Your task to perform on an android device: Go to accessibility settings Image 0: 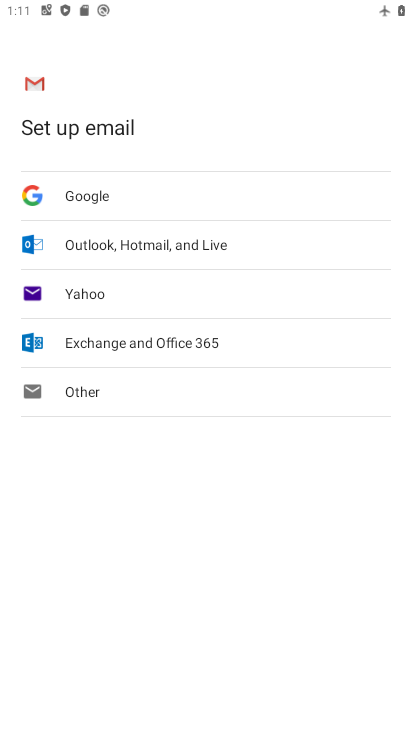
Step 0: press home button
Your task to perform on an android device: Go to accessibility settings Image 1: 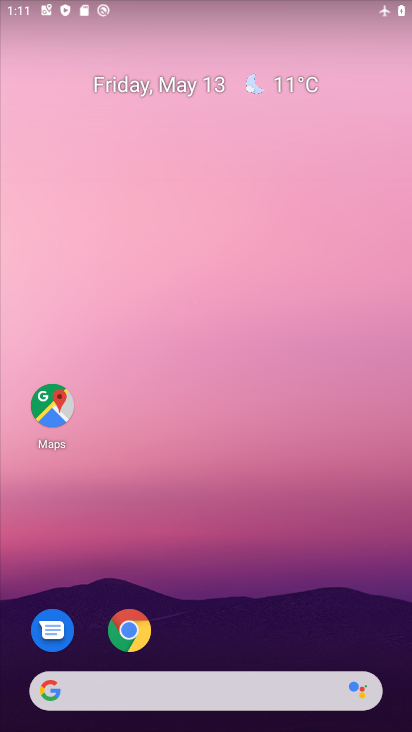
Step 1: drag from (336, 632) to (368, 27)
Your task to perform on an android device: Go to accessibility settings Image 2: 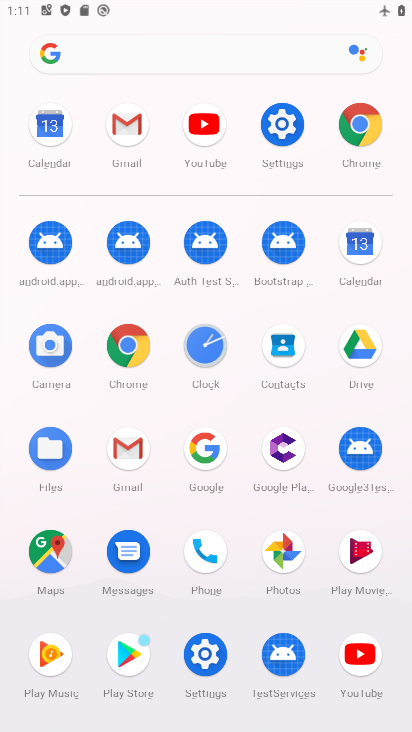
Step 2: click (288, 121)
Your task to perform on an android device: Go to accessibility settings Image 3: 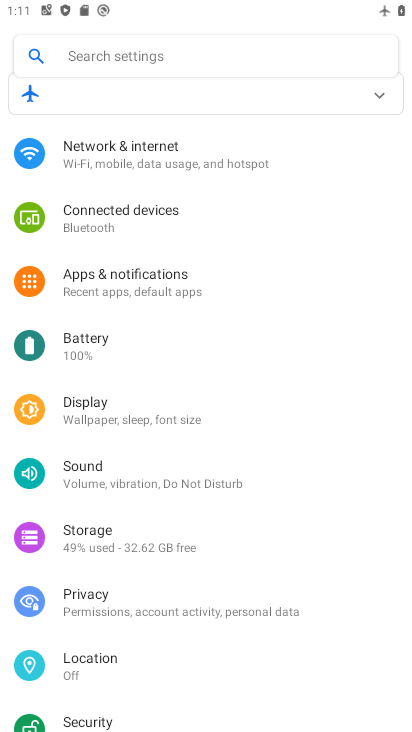
Step 3: drag from (336, 577) to (334, 191)
Your task to perform on an android device: Go to accessibility settings Image 4: 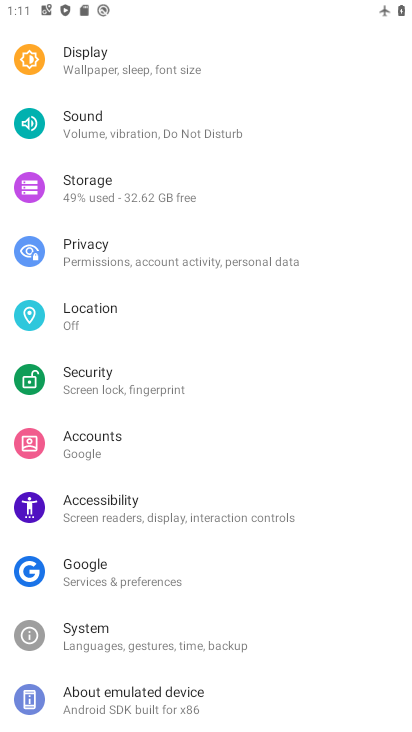
Step 4: click (103, 511)
Your task to perform on an android device: Go to accessibility settings Image 5: 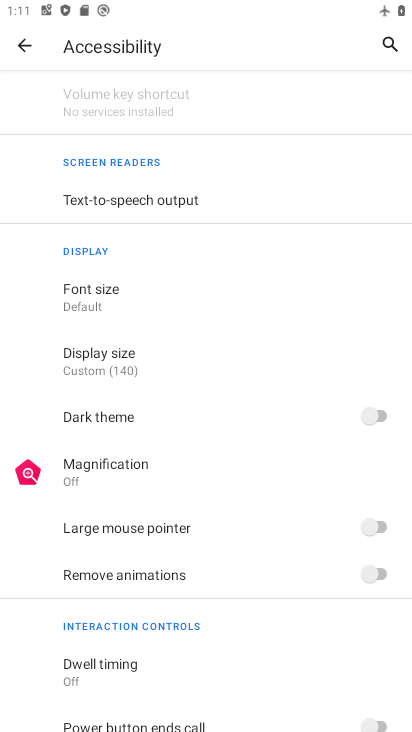
Step 5: task complete